Your task to perform on an android device: Open my contact list Image 0: 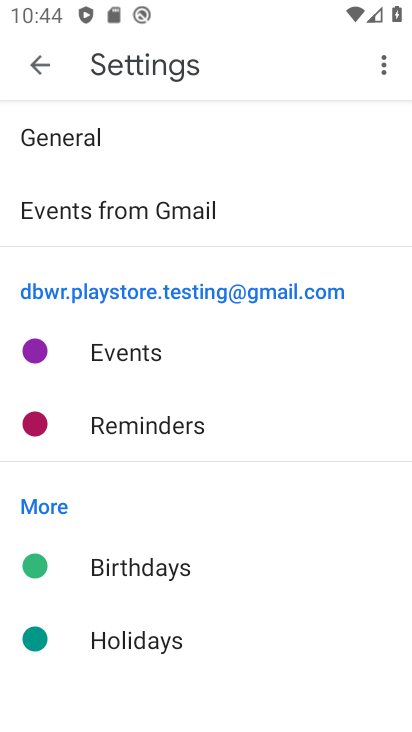
Step 0: press home button
Your task to perform on an android device: Open my contact list Image 1: 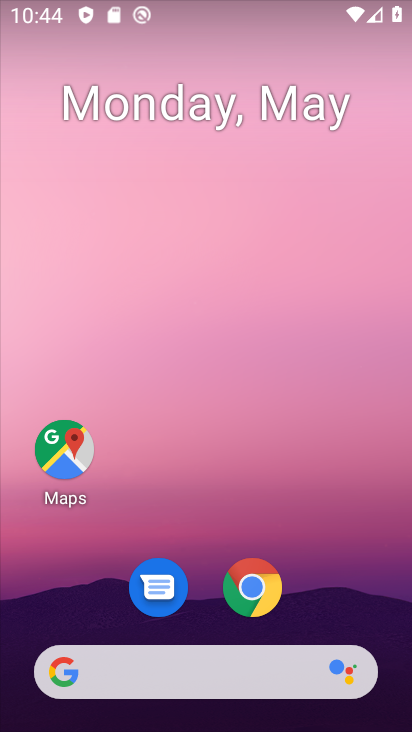
Step 1: drag from (328, 608) to (293, 42)
Your task to perform on an android device: Open my contact list Image 2: 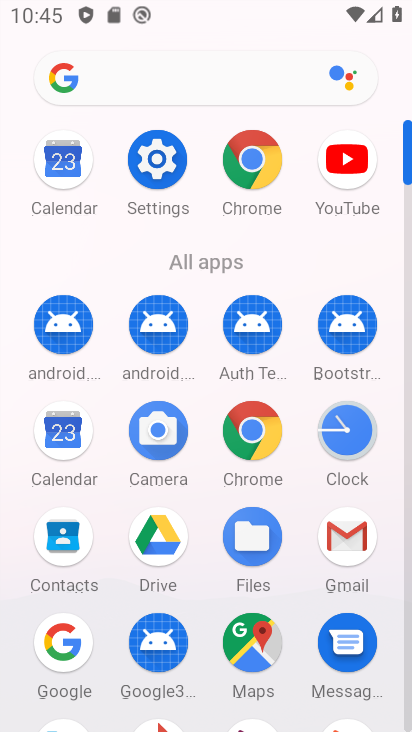
Step 2: click (81, 556)
Your task to perform on an android device: Open my contact list Image 3: 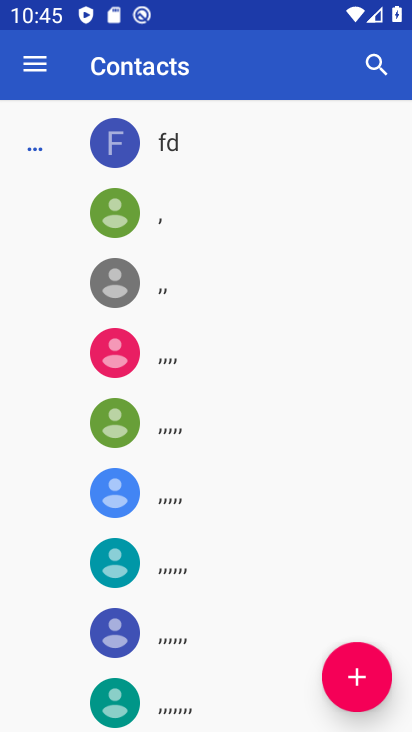
Step 3: task complete